Your task to perform on an android device: check android version Image 0: 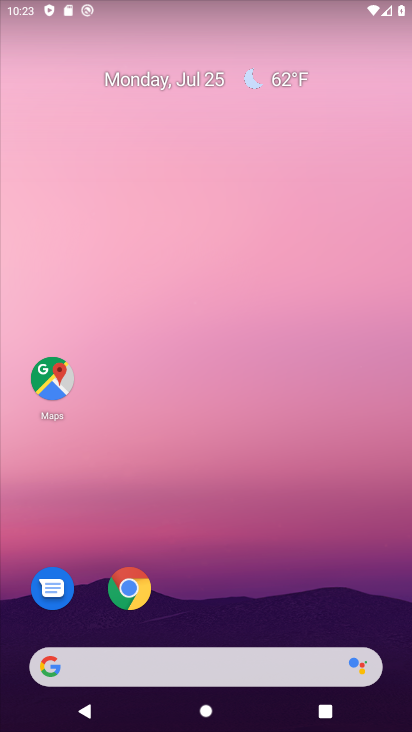
Step 0: drag from (39, 568) to (225, 112)
Your task to perform on an android device: check android version Image 1: 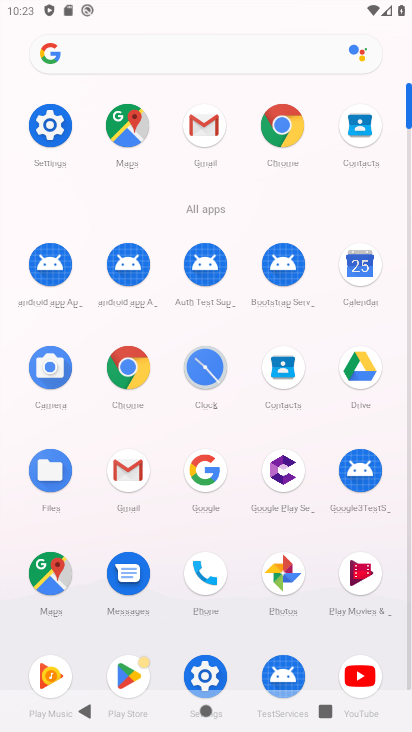
Step 1: click (50, 128)
Your task to perform on an android device: check android version Image 2: 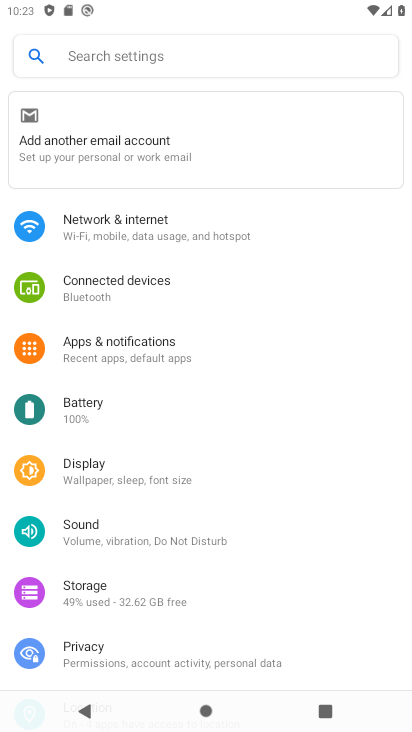
Step 2: drag from (130, 631) to (318, 166)
Your task to perform on an android device: check android version Image 3: 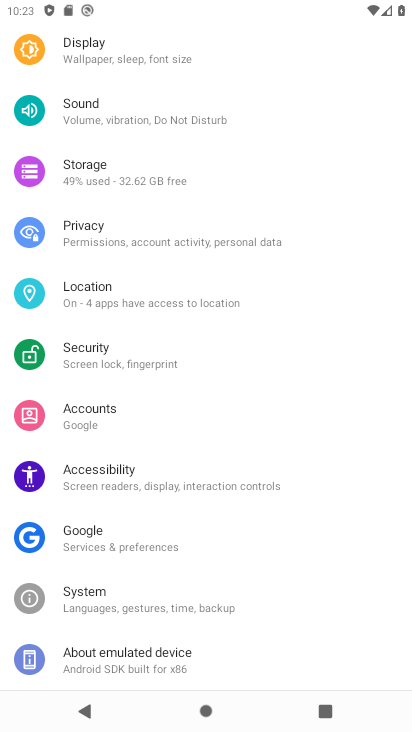
Step 3: drag from (44, 659) to (314, 99)
Your task to perform on an android device: check android version Image 4: 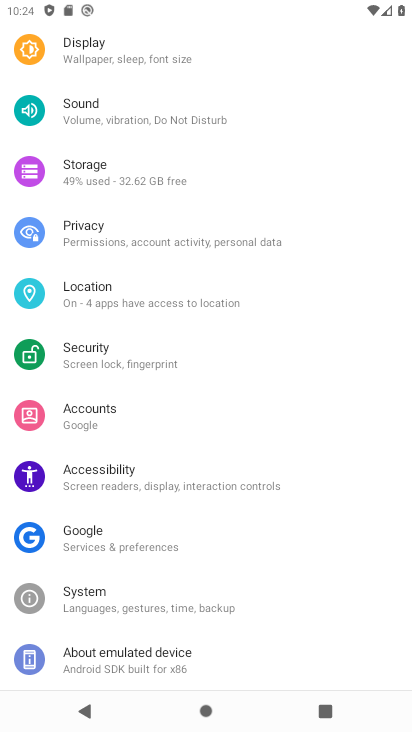
Step 4: click (129, 652)
Your task to perform on an android device: check android version Image 5: 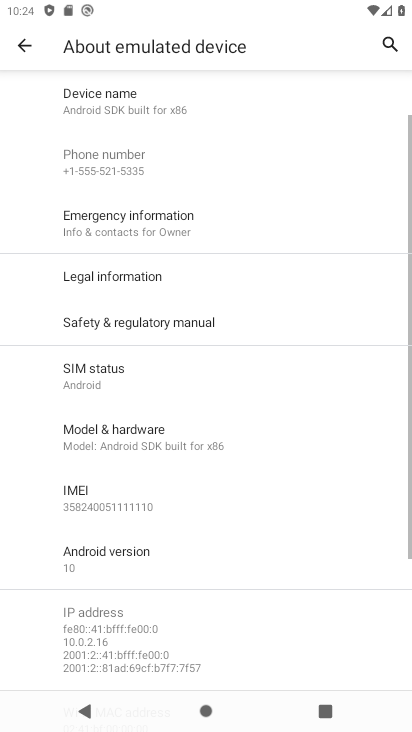
Step 5: click (138, 550)
Your task to perform on an android device: check android version Image 6: 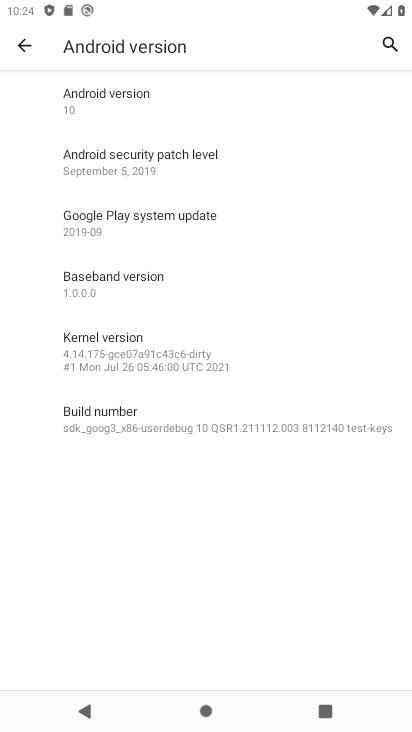
Step 6: click (67, 95)
Your task to perform on an android device: check android version Image 7: 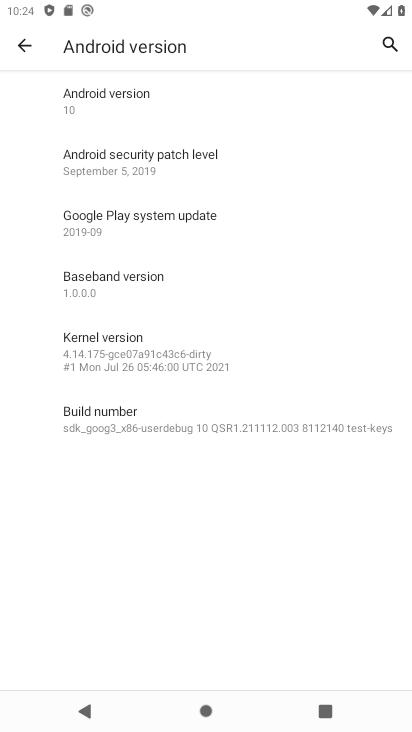
Step 7: task complete